Your task to perform on an android device: change the clock display to digital Image 0: 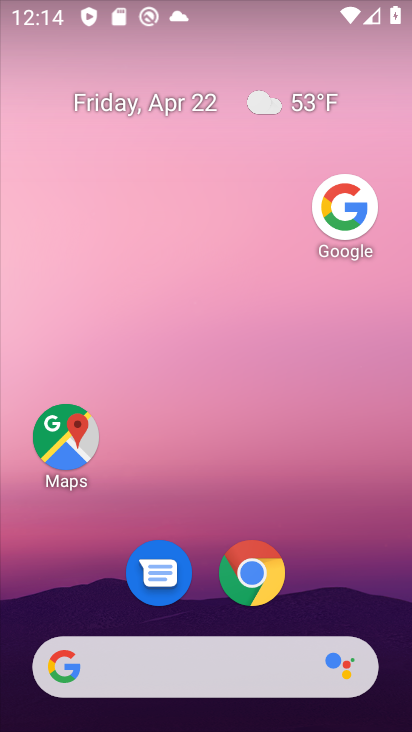
Step 0: press home button
Your task to perform on an android device: change the clock display to digital Image 1: 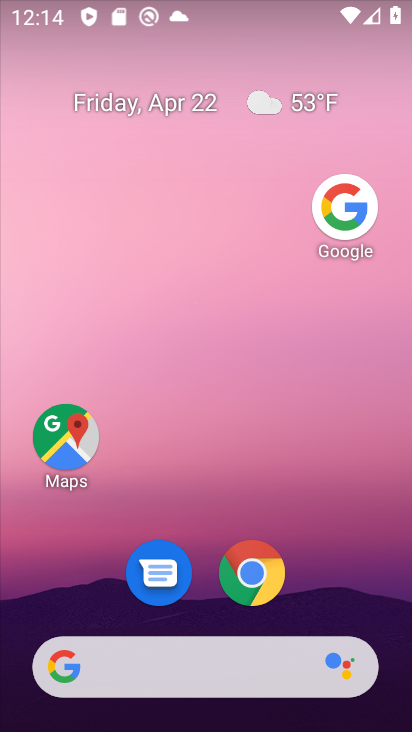
Step 1: drag from (184, 533) to (316, 161)
Your task to perform on an android device: change the clock display to digital Image 2: 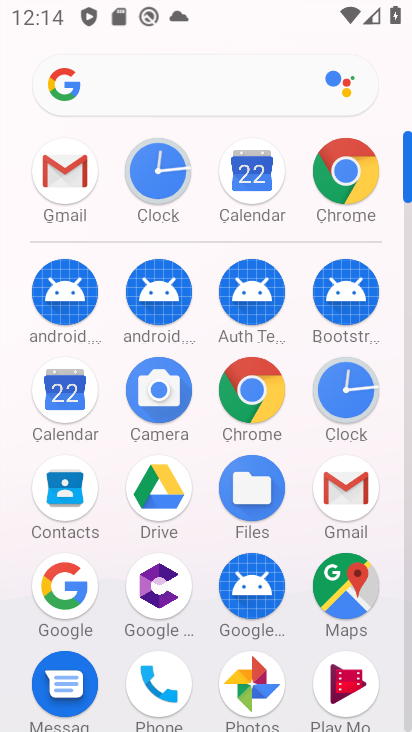
Step 2: click (352, 401)
Your task to perform on an android device: change the clock display to digital Image 3: 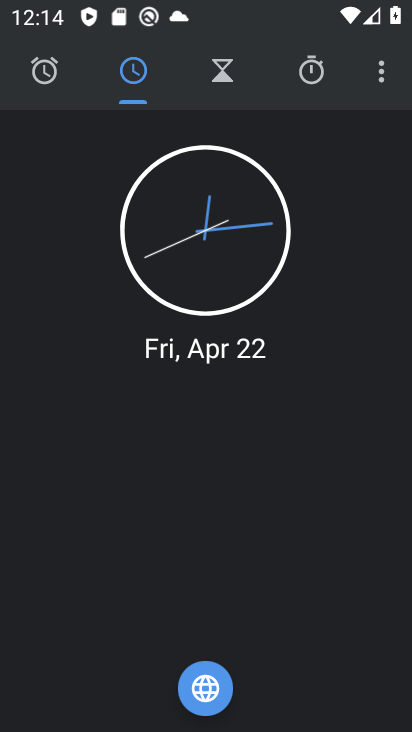
Step 3: click (385, 78)
Your task to perform on an android device: change the clock display to digital Image 4: 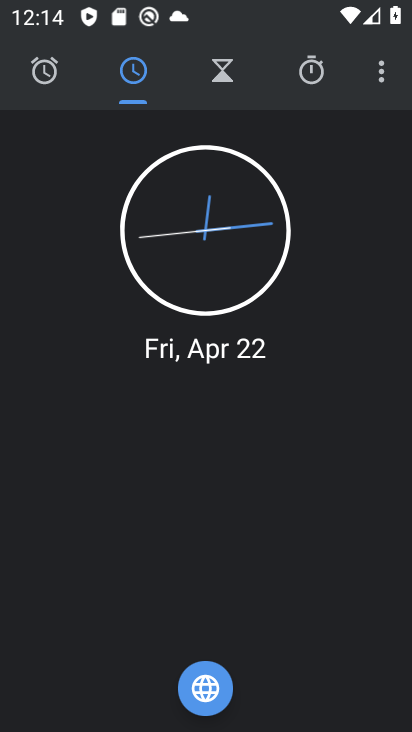
Step 4: click (380, 82)
Your task to perform on an android device: change the clock display to digital Image 5: 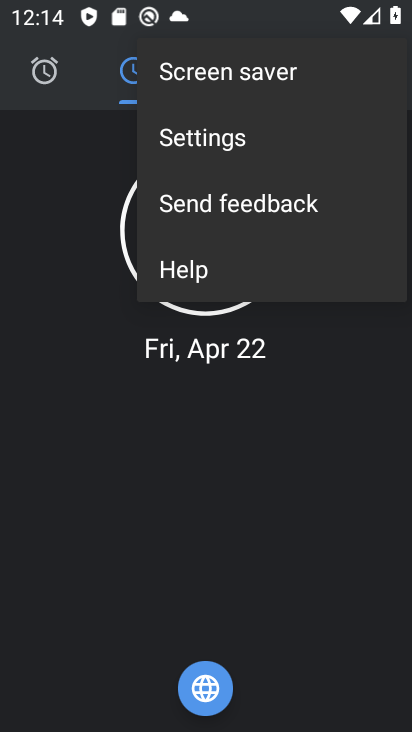
Step 5: click (204, 139)
Your task to perform on an android device: change the clock display to digital Image 6: 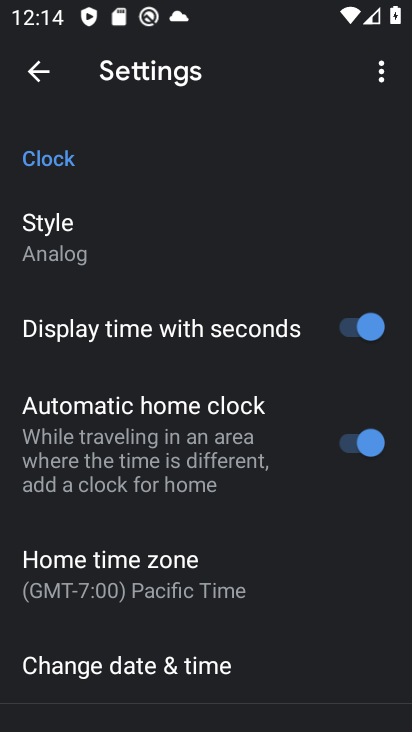
Step 6: click (37, 242)
Your task to perform on an android device: change the clock display to digital Image 7: 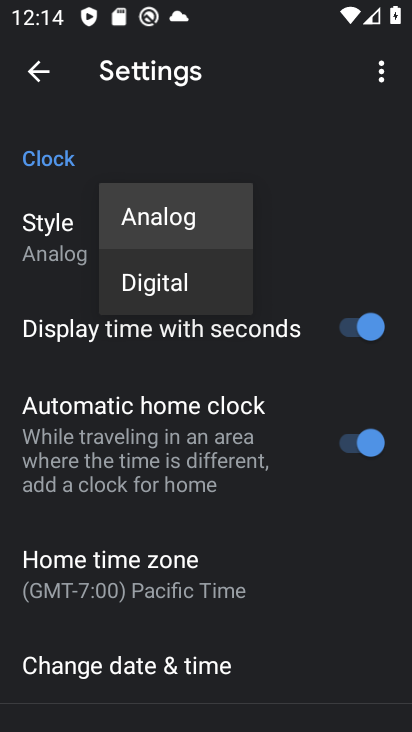
Step 7: click (143, 286)
Your task to perform on an android device: change the clock display to digital Image 8: 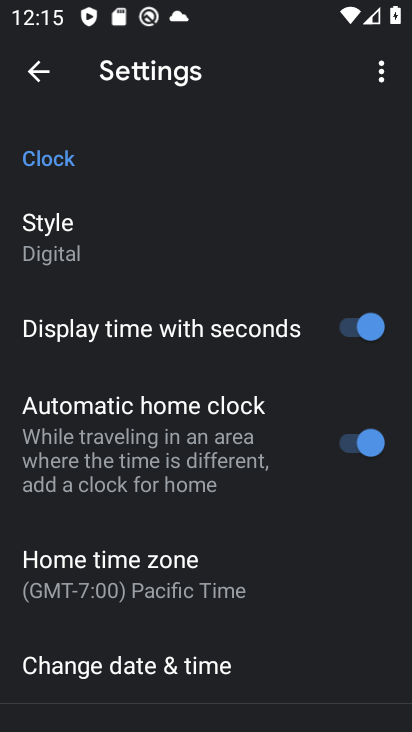
Step 8: task complete